Your task to perform on an android device: Open the Play Movies app and select the watchlist tab. Image 0: 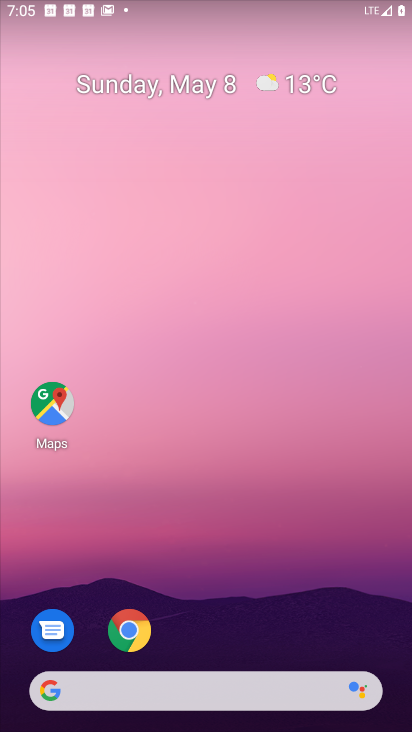
Step 0: drag from (252, 598) to (200, 225)
Your task to perform on an android device: Open the Play Movies app and select the watchlist tab. Image 1: 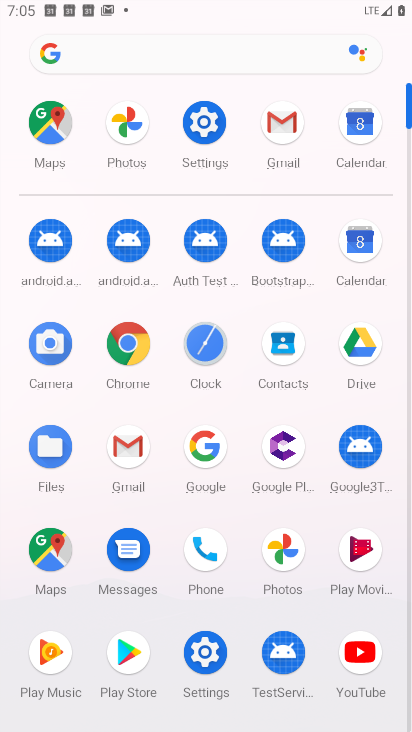
Step 1: click (358, 560)
Your task to perform on an android device: Open the Play Movies app and select the watchlist tab. Image 2: 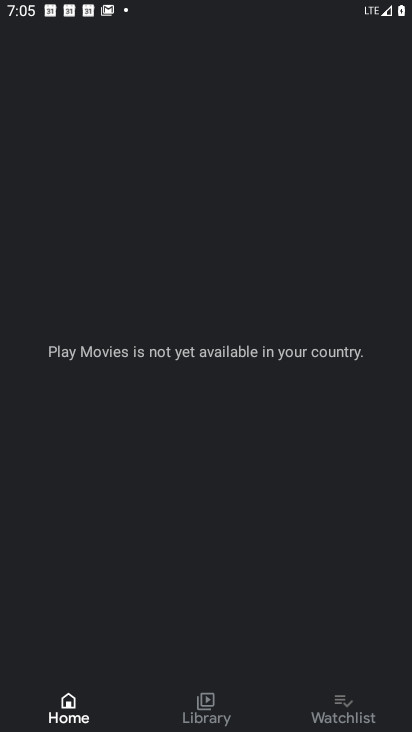
Step 2: click (344, 709)
Your task to perform on an android device: Open the Play Movies app and select the watchlist tab. Image 3: 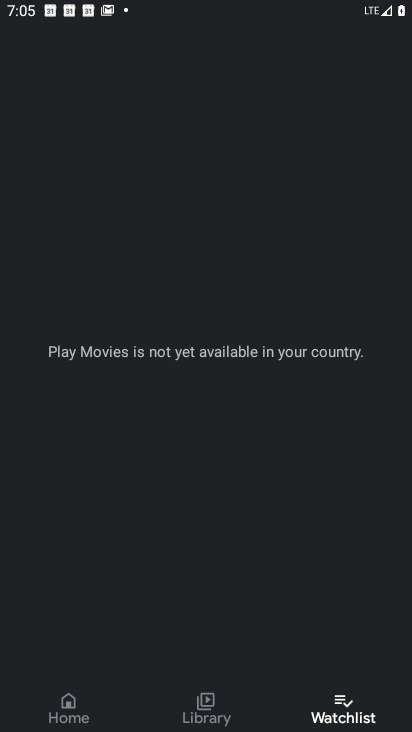
Step 3: task complete